Your task to perform on an android device: open wifi settings Image 0: 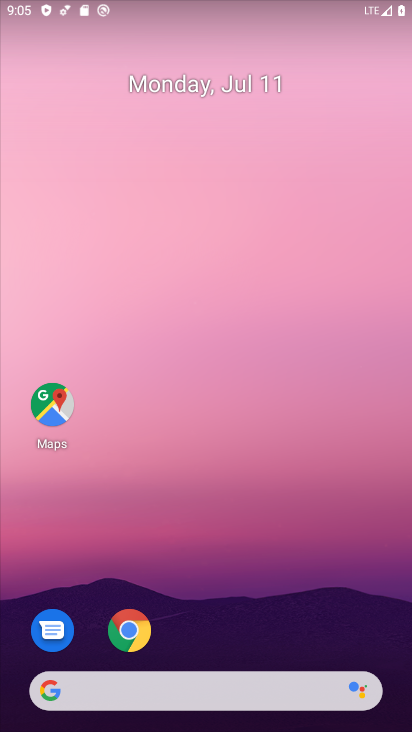
Step 0: drag from (199, 595) to (208, 448)
Your task to perform on an android device: open wifi settings Image 1: 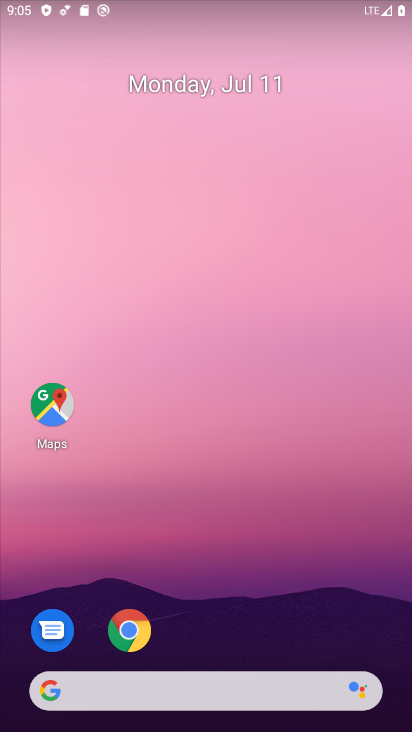
Step 1: click (58, 366)
Your task to perform on an android device: open wifi settings Image 2: 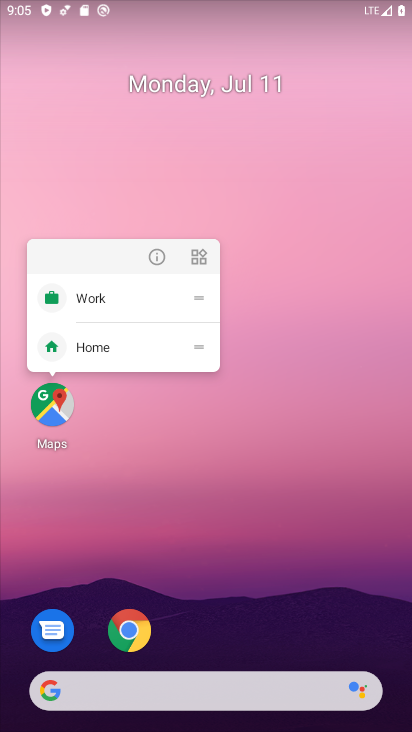
Step 2: click (317, 578)
Your task to perform on an android device: open wifi settings Image 3: 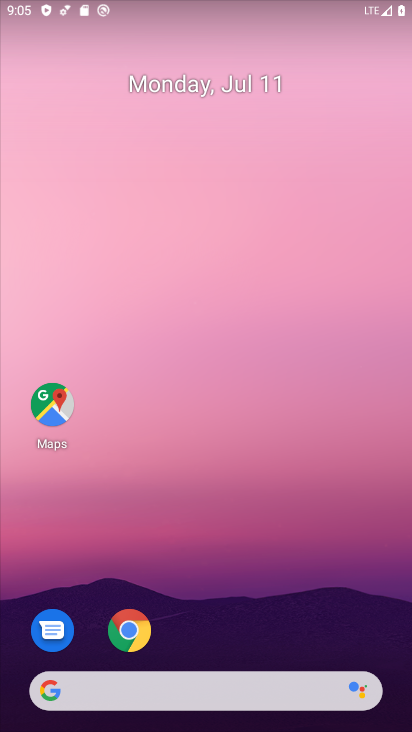
Step 3: drag from (265, 679) to (309, 0)
Your task to perform on an android device: open wifi settings Image 4: 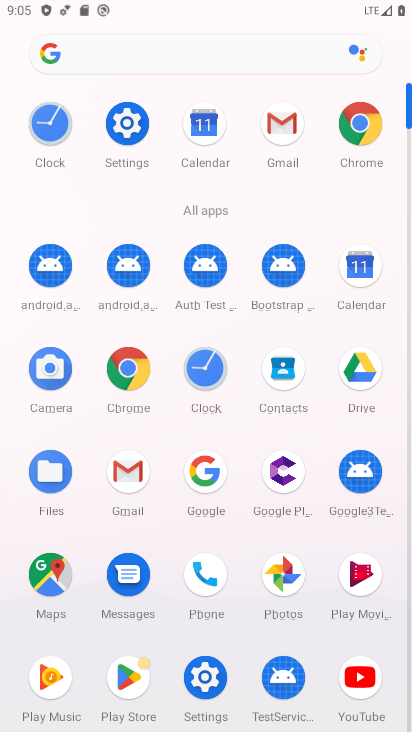
Step 4: click (122, 121)
Your task to perform on an android device: open wifi settings Image 5: 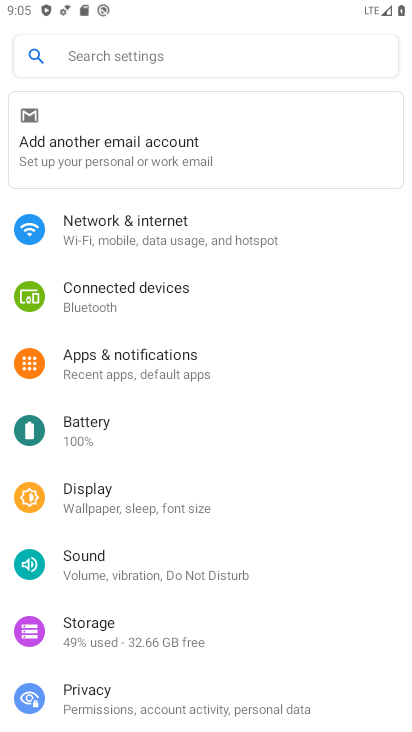
Step 5: click (105, 234)
Your task to perform on an android device: open wifi settings Image 6: 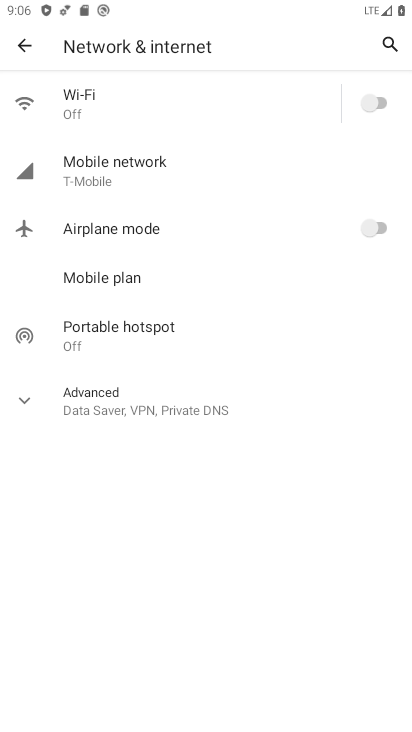
Step 6: task complete